Your task to perform on an android device: Turn on the flashlight Image 0: 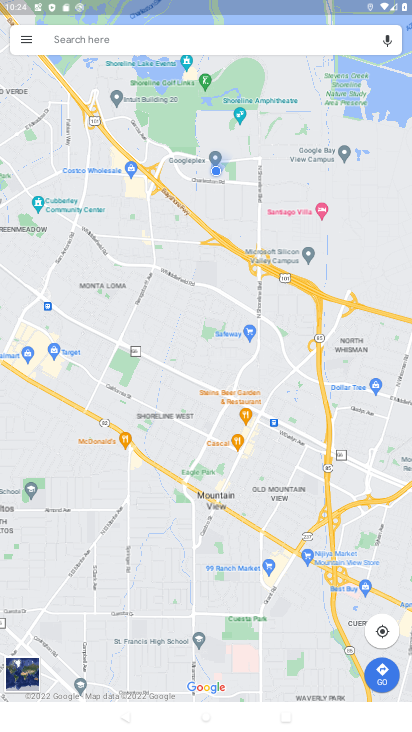
Step 0: press home button
Your task to perform on an android device: Turn on the flashlight Image 1: 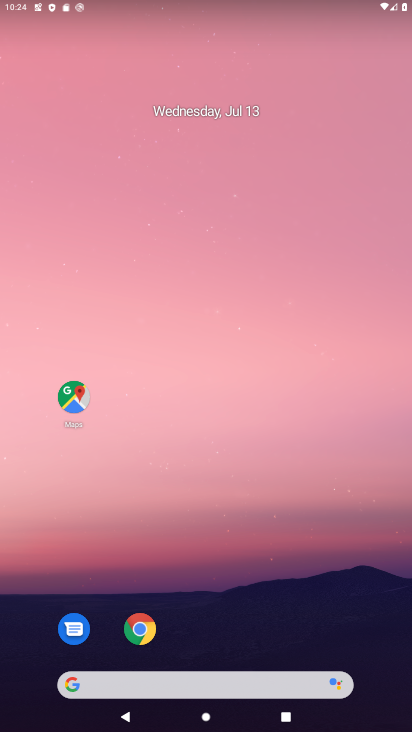
Step 1: drag from (216, 642) to (285, 24)
Your task to perform on an android device: Turn on the flashlight Image 2: 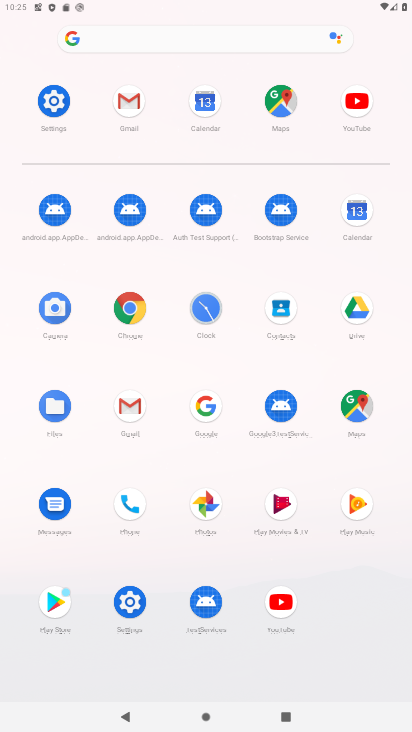
Step 2: click (53, 95)
Your task to perform on an android device: Turn on the flashlight Image 3: 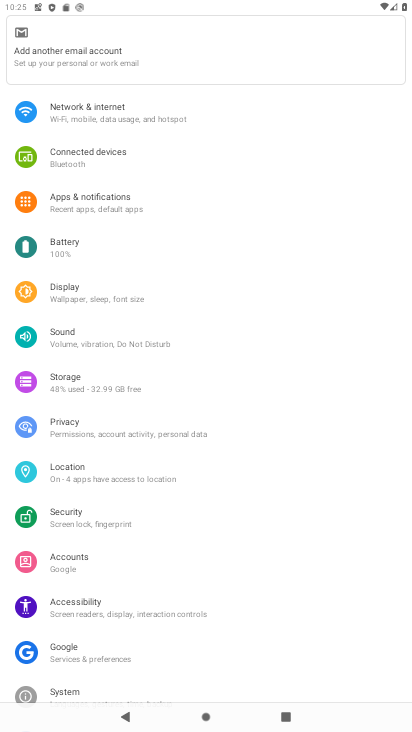
Step 3: drag from (115, 176) to (115, 577)
Your task to perform on an android device: Turn on the flashlight Image 4: 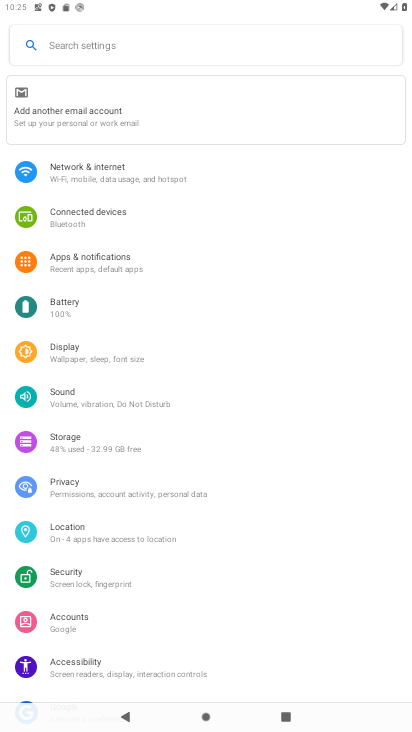
Step 4: click (91, 42)
Your task to perform on an android device: Turn on the flashlight Image 5: 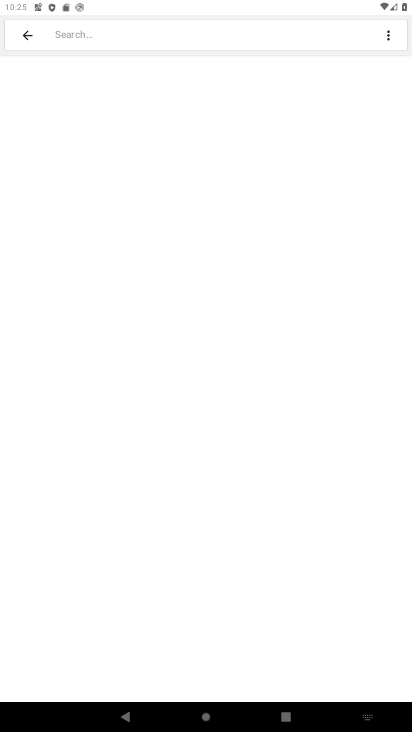
Step 5: type "flashlight"
Your task to perform on an android device: Turn on the flashlight Image 6: 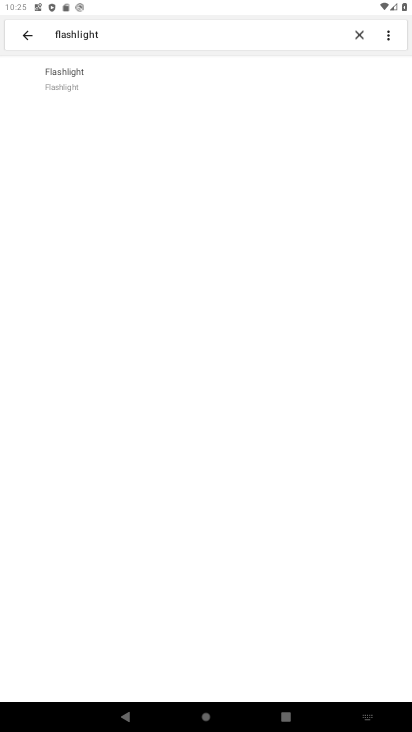
Step 6: click (98, 76)
Your task to perform on an android device: Turn on the flashlight Image 7: 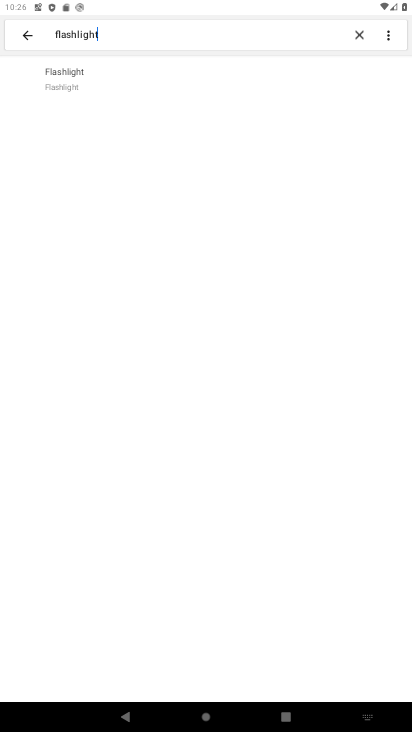
Step 7: task complete